Your task to perform on an android device: move a message to another label in the gmail app Image 0: 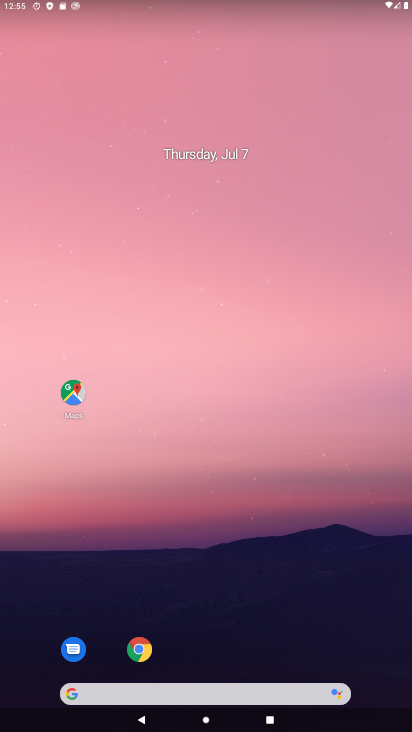
Step 0: drag from (225, 655) to (89, 95)
Your task to perform on an android device: move a message to another label in the gmail app Image 1: 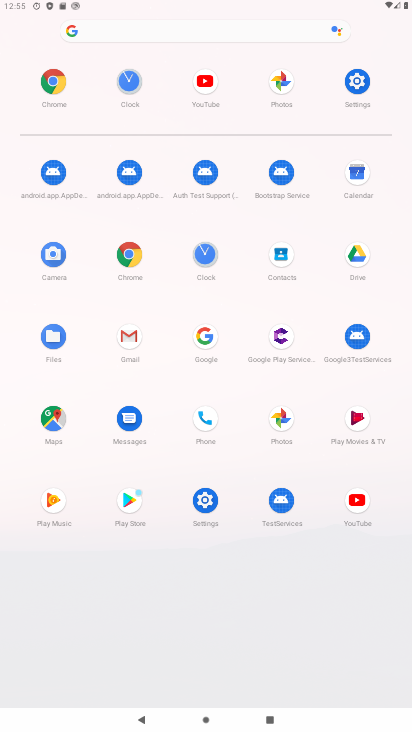
Step 1: click (135, 339)
Your task to perform on an android device: move a message to another label in the gmail app Image 2: 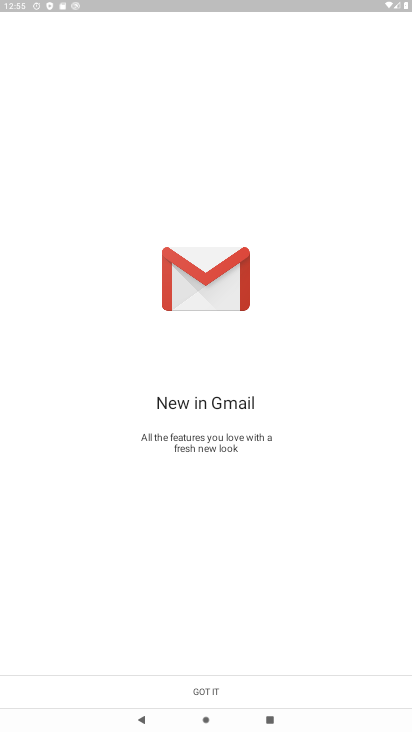
Step 2: click (183, 701)
Your task to perform on an android device: move a message to another label in the gmail app Image 3: 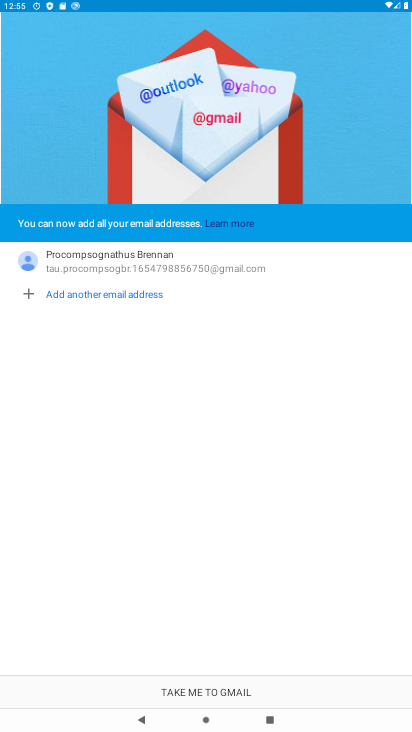
Step 3: click (183, 701)
Your task to perform on an android device: move a message to another label in the gmail app Image 4: 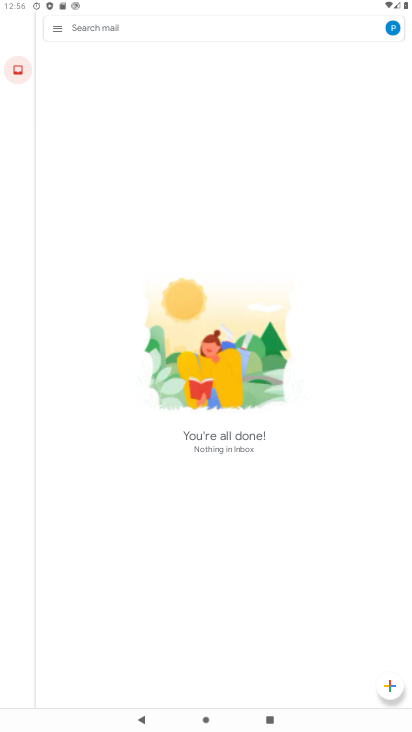
Step 4: task complete